Your task to perform on an android device: Search for vegetarian restaurants on Maps Image 0: 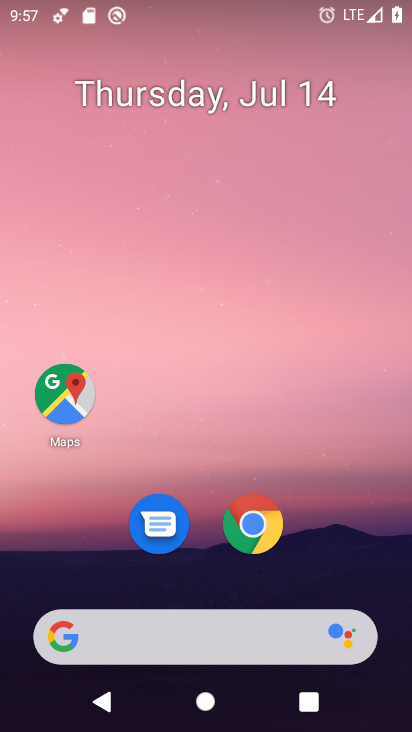
Step 0: click (59, 389)
Your task to perform on an android device: Search for vegetarian restaurants on Maps Image 1: 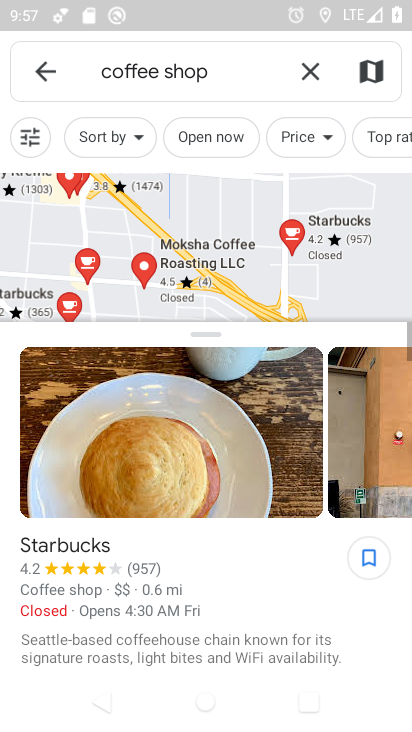
Step 1: click (311, 64)
Your task to perform on an android device: Search for vegetarian restaurants on Maps Image 2: 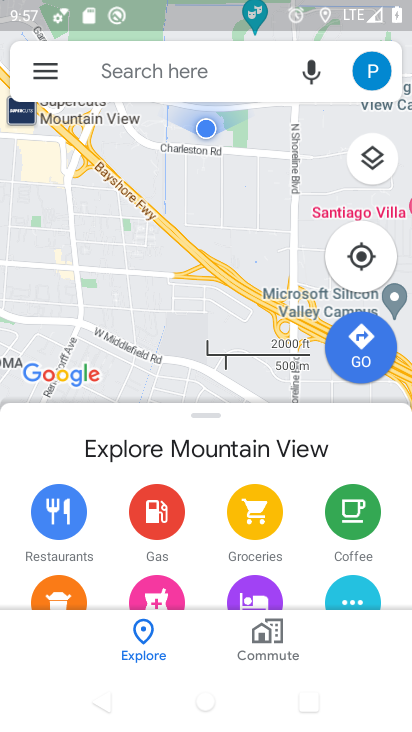
Step 2: click (196, 67)
Your task to perform on an android device: Search for vegetarian restaurants on Maps Image 3: 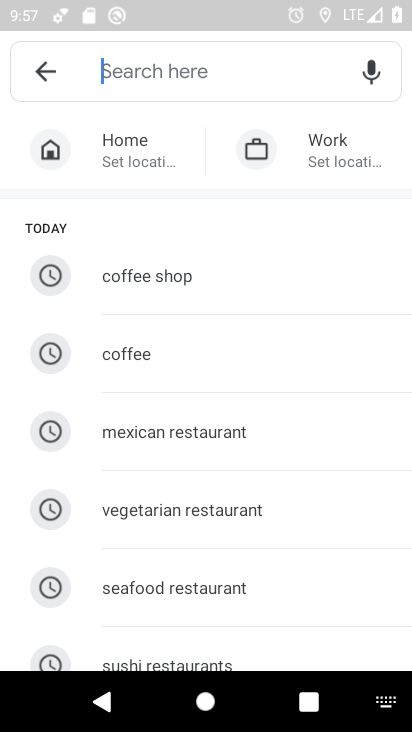
Step 3: click (188, 500)
Your task to perform on an android device: Search for vegetarian restaurants on Maps Image 4: 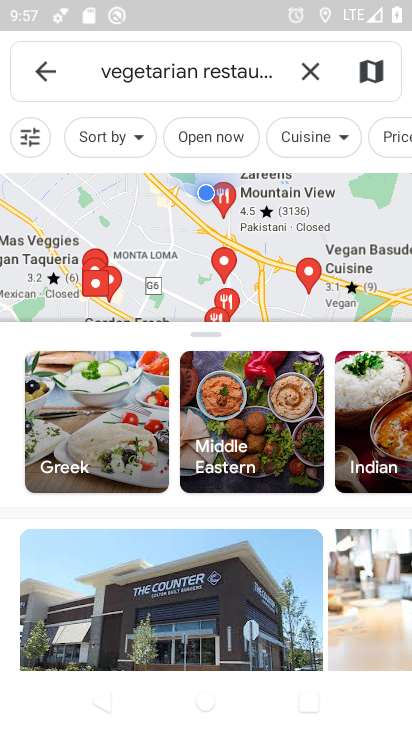
Step 4: task complete